Your task to perform on an android device: Open the web browser Image 0: 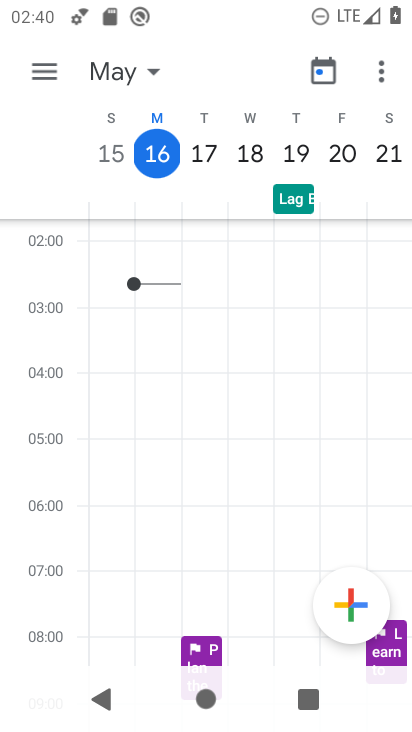
Step 0: press home button
Your task to perform on an android device: Open the web browser Image 1: 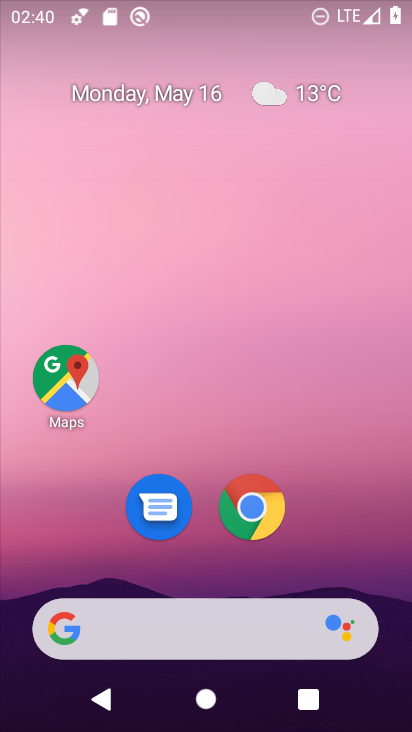
Step 1: click (241, 517)
Your task to perform on an android device: Open the web browser Image 2: 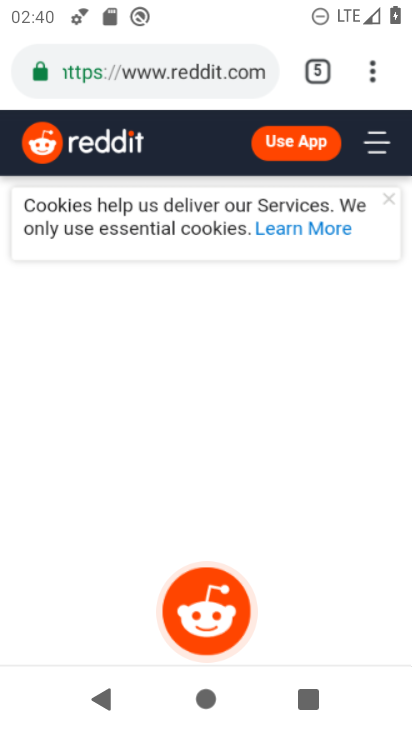
Step 2: task complete